Your task to perform on an android device: What's the weather? Image 0: 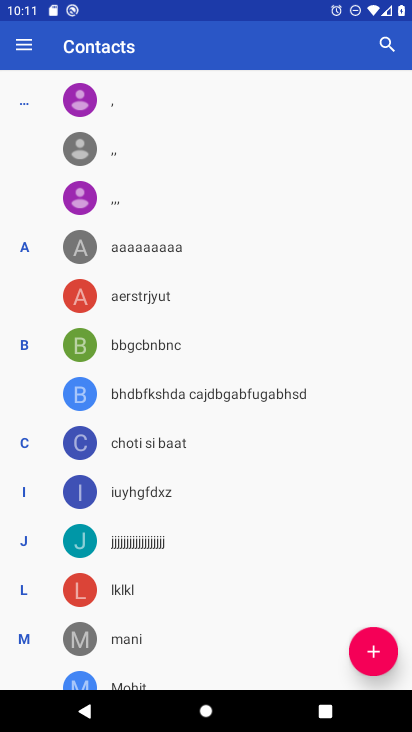
Step 0: press home button
Your task to perform on an android device: What's the weather? Image 1: 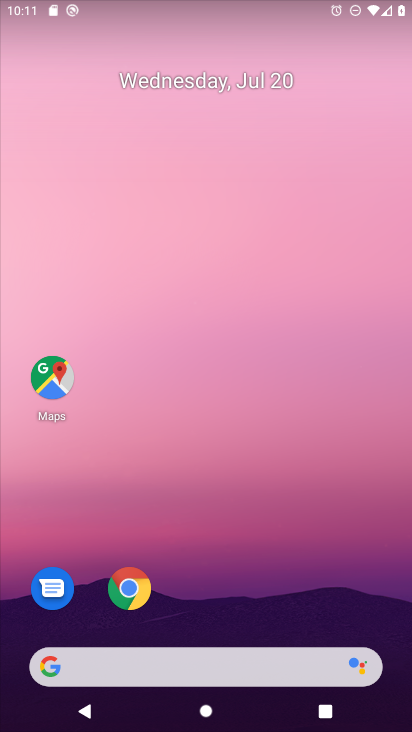
Step 1: click (131, 635)
Your task to perform on an android device: What's the weather? Image 2: 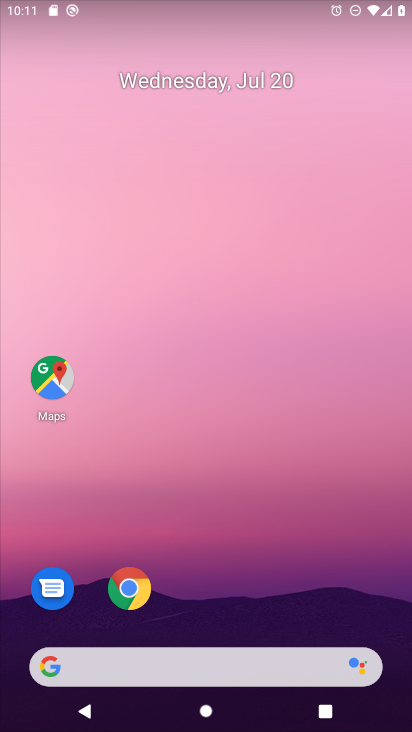
Step 2: click (175, 665)
Your task to perform on an android device: What's the weather? Image 3: 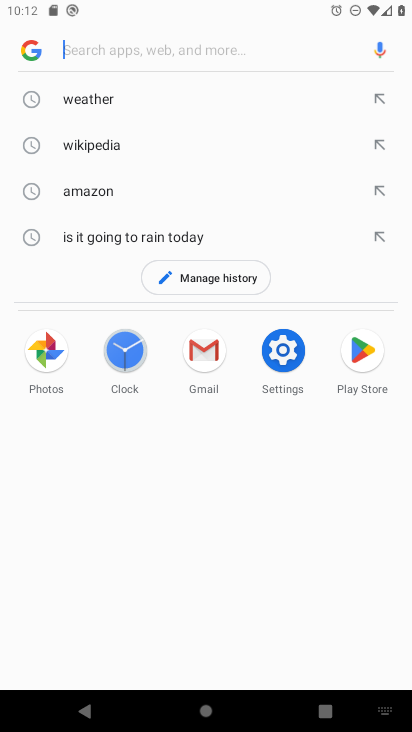
Step 3: click (79, 106)
Your task to perform on an android device: What's the weather? Image 4: 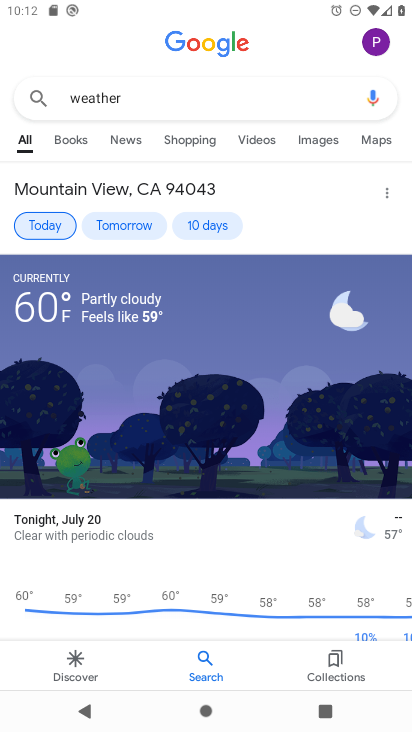
Step 4: task complete